Your task to perform on an android device: Open Youtube and go to the subscriptions tab Image 0: 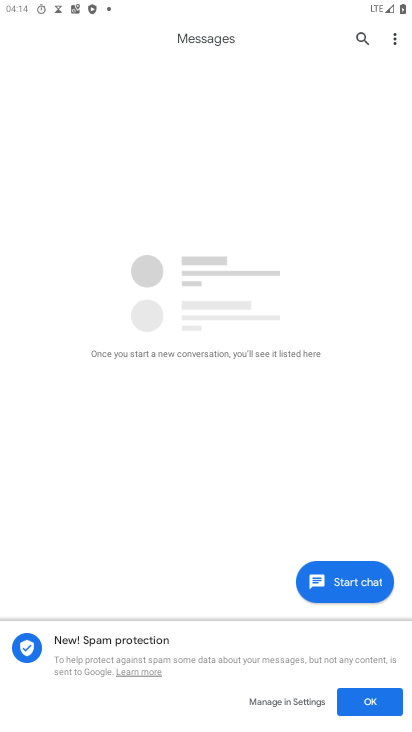
Step 0: press home button
Your task to perform on an android device: Open Youtube and go to the subscriptions tab Image 1: 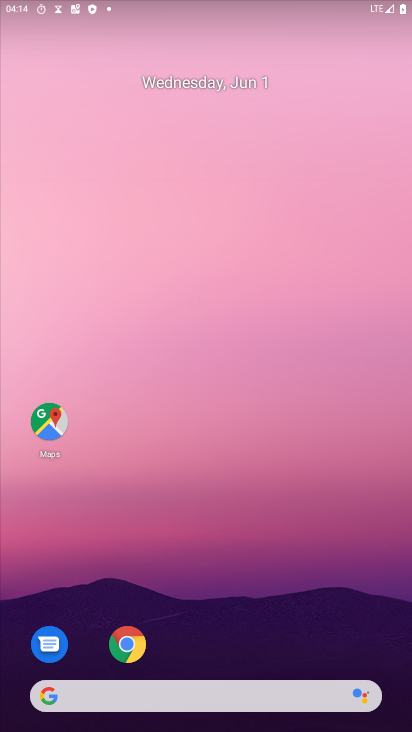
Step 1: drag from (324, 633) to (324, 191)
Your task to perform on an android device: Open Youtube and go to the subscriptions tab Image 2: 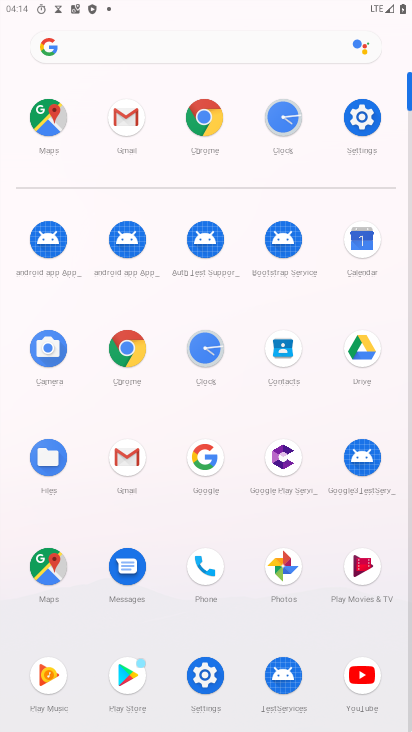
Step 2: click (364, 677)
Your task to perform on an android device: Open Youtube and go to the subscriptions tab Image 3: 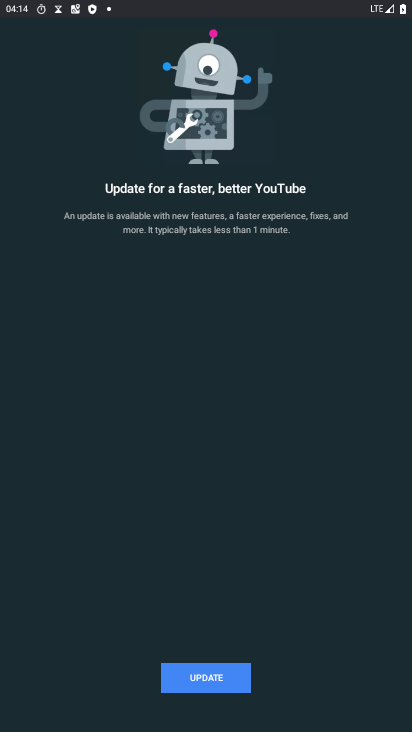
Step 3: click (211, 683)
Your task to perform on an android device: Open Youtube and go to the subscriptions tab Image 4: 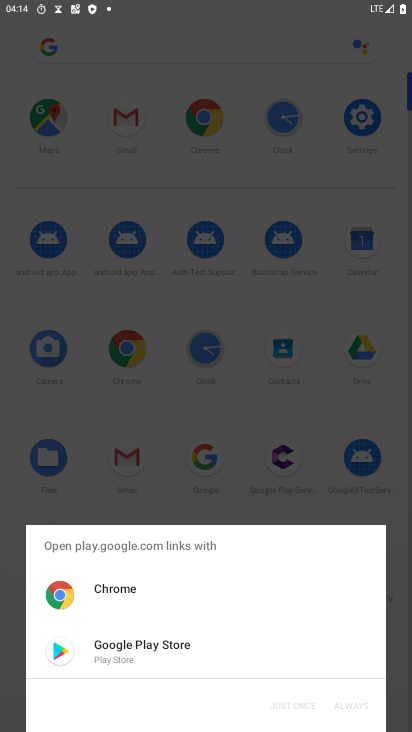
Step 4: click (178, 652)
Your task to perform on an android device: Open Youtube and go to the subscriptions tab Image 5: 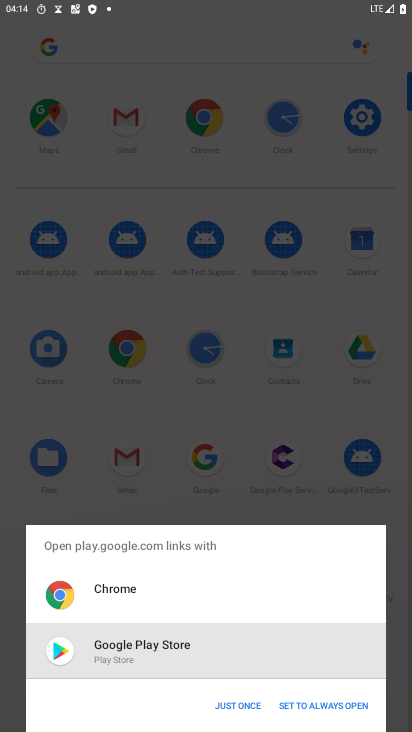
Step 5: click (234, 707)
Your task to perform on an android device: Open Youtube and go to the subscriptions tab Image 6: 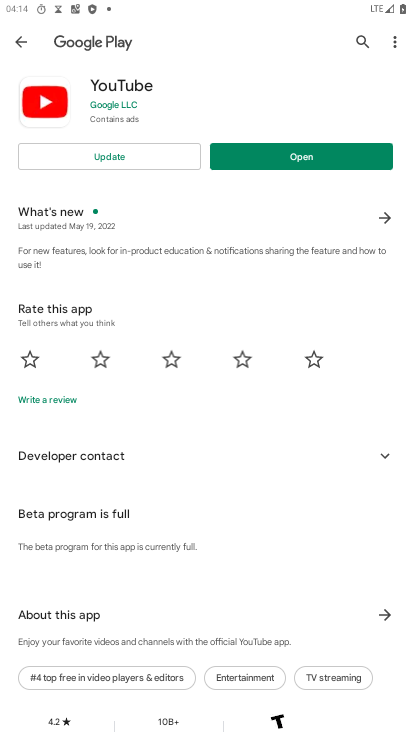
Step 6: click (120, 155)
Your task to perform on an android device: Open Youtube and go to the subscriptions tab Image 7: 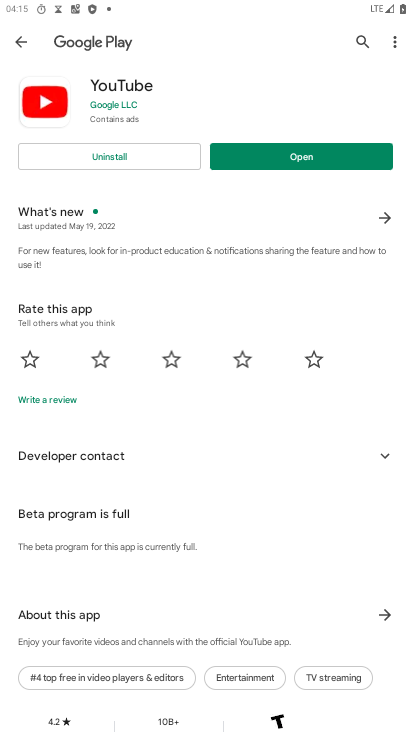
Step 7: click (303, 154)
Your task to perform on an android device: Open Youtube and go to the subscriptions tab Image 8: 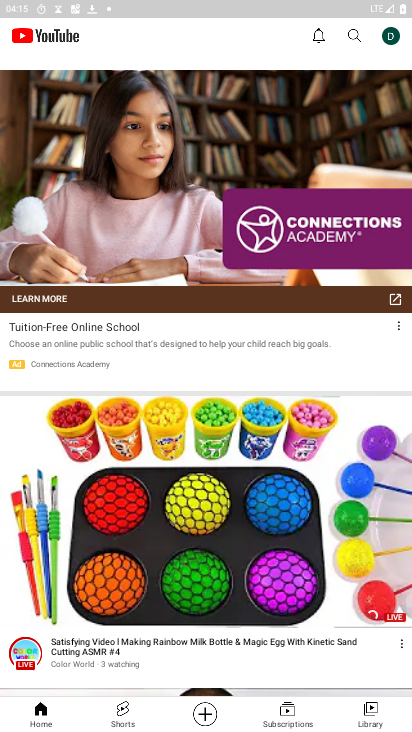
Step 8: click (284, 712)
Your task to perform on an android device: Open Youtube and go to the subscriptions tab Image 9: 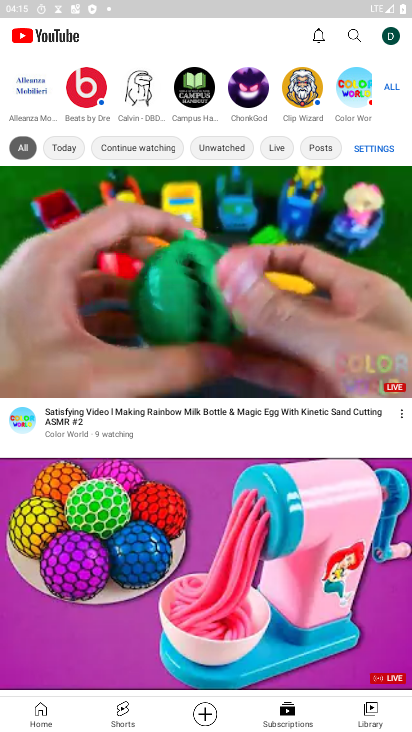
Step 9: click (280, 712)
Your task to perform on an android device: Open Youtube and go to the subscriptions tab Image 10: 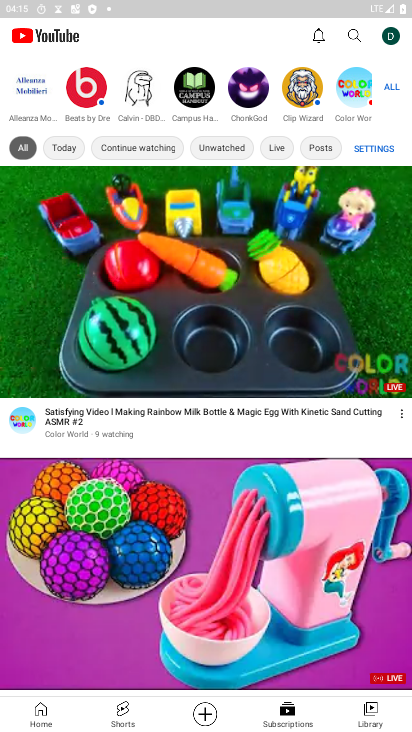
Step 10: task complete